Your task to perform on an android device: turn on translation in the chrome app Image 0: 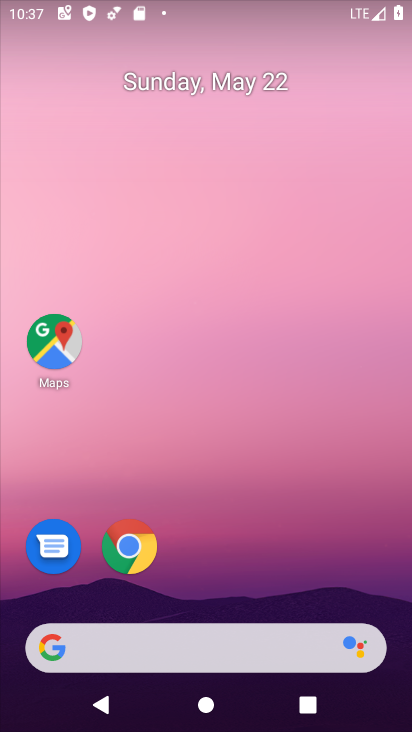
Step 0: drag from (236, 583) to (296, 10)
Your task to perform on an android device: turn on translation in the chrome app Image 1: 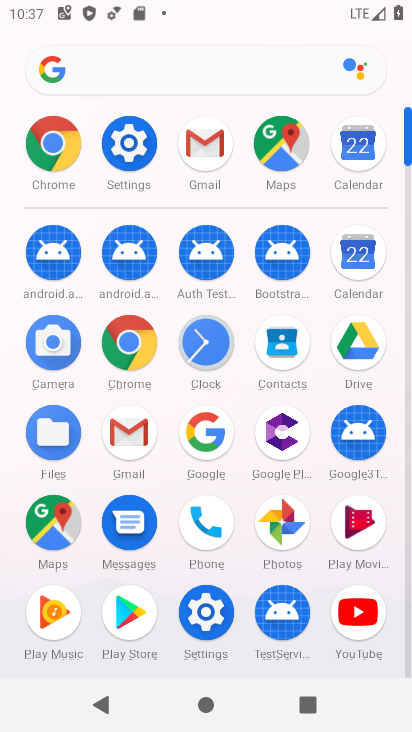
Step 1: click (130, 351)
Your task to perform on an android device: turn on translation in the chrome app Image 2: 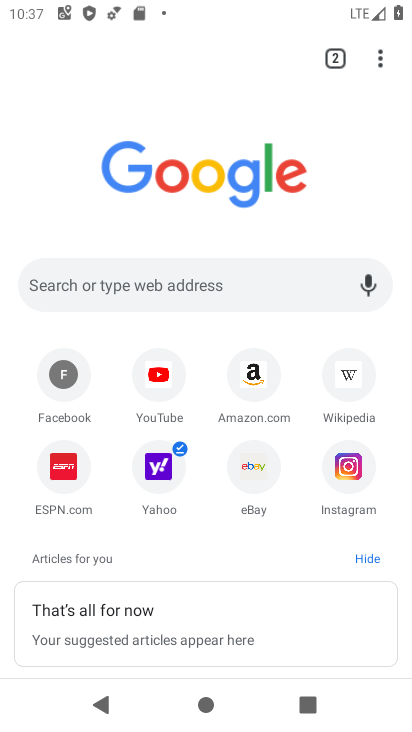
Step 2: click (377, 61)
Your task to perform on an android device: turn on translation in the chrome app Image 3: 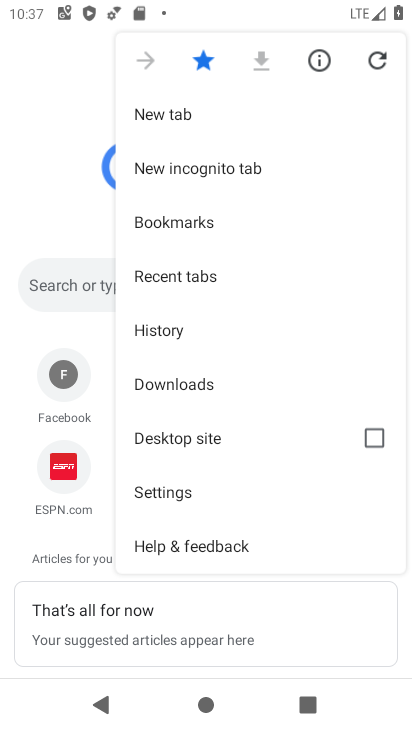
Step 3: click (164, 488)
Your task to perform on an android device: turn on translation in the chrome app Image 4: 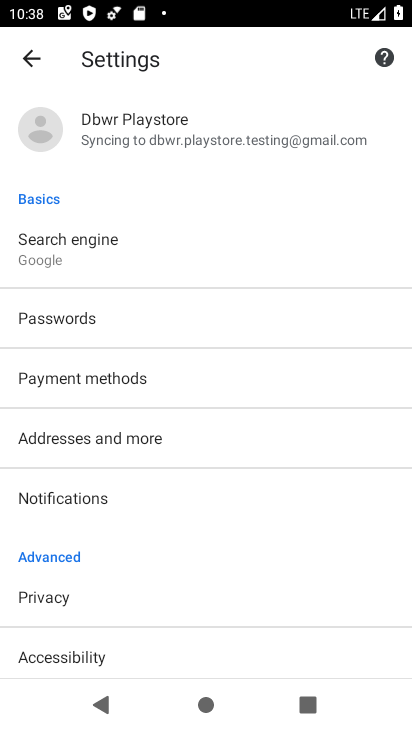
Step 4: drag from (90, 544) to (138, 326)
Your task to perform on an android device: turn on translation in the chrome app Image 5: 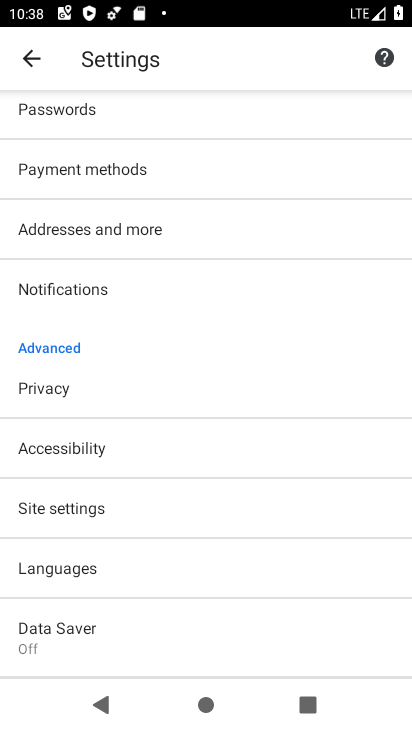
Step 5: click (80, 571)
Your task to perform on an android device: turn on translation in the chrome app Image 6: 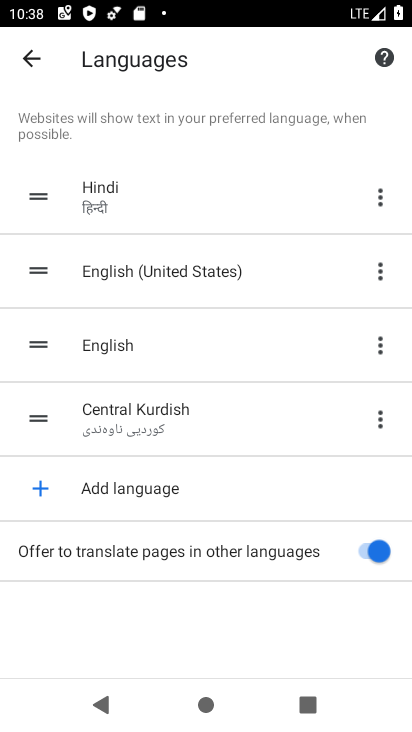
Step 6: task complete